Your task to perform on an android device: View the shopping cart on target.com. Image 0: 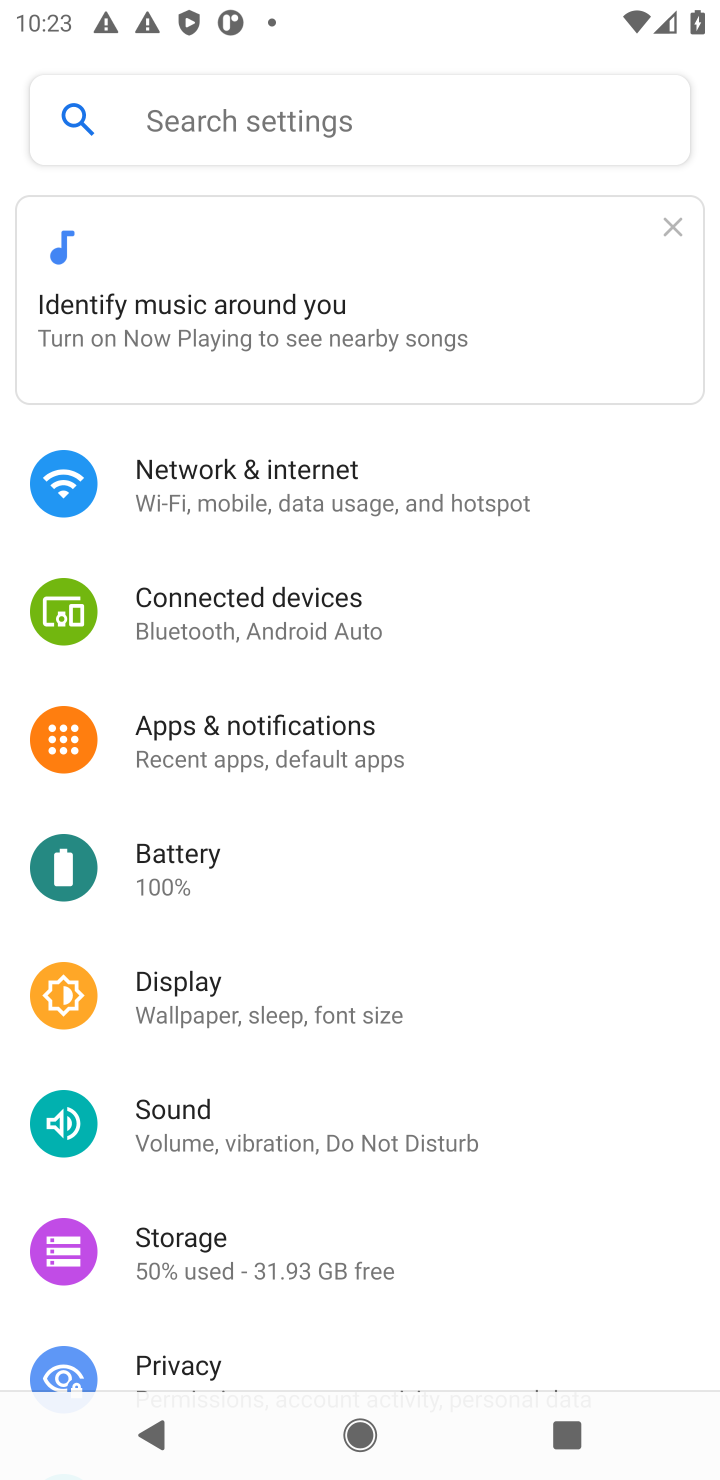
Step 0: press home button
Your task to perform on an android device: View the shopping cart on target.com. Image 1: 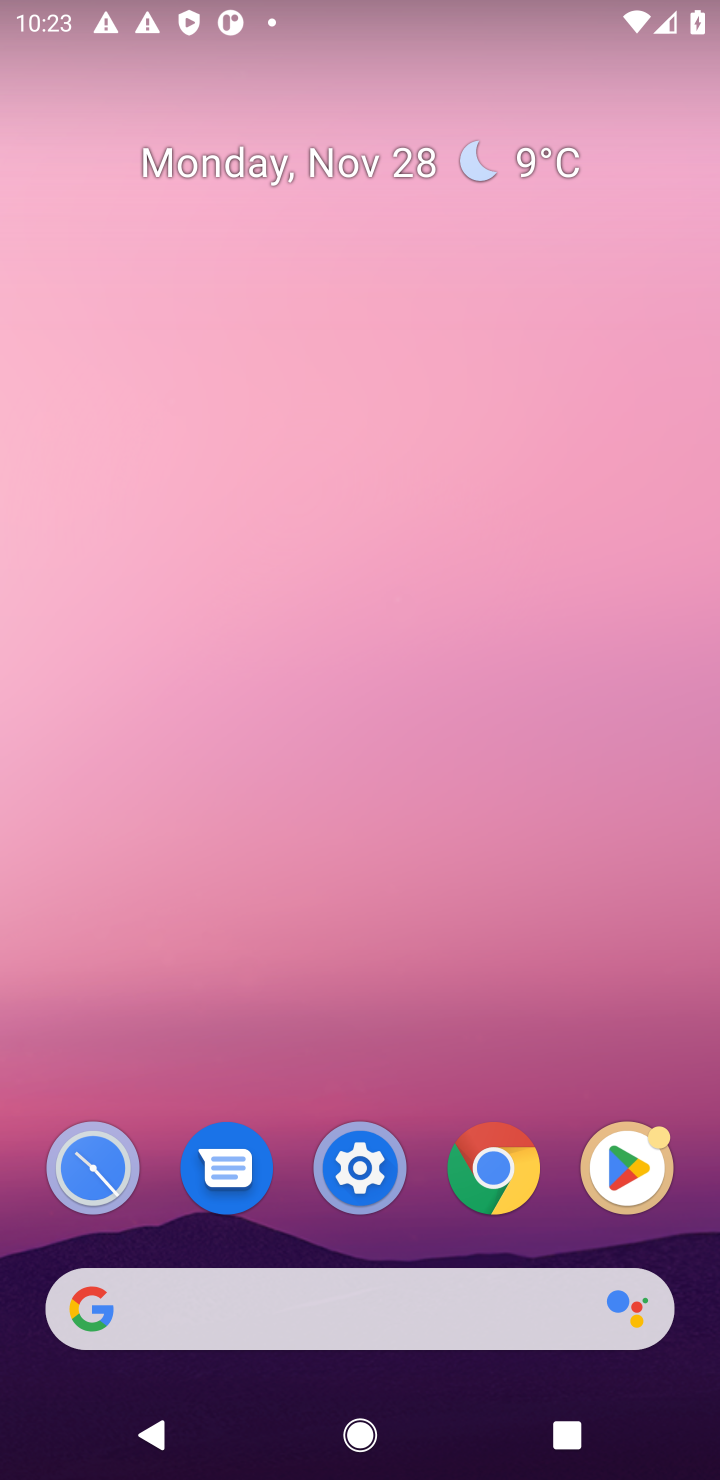
Step 1: click (341, 1324)
Your task to perform on an android device: View the shopping cart on target.com. Image 2: 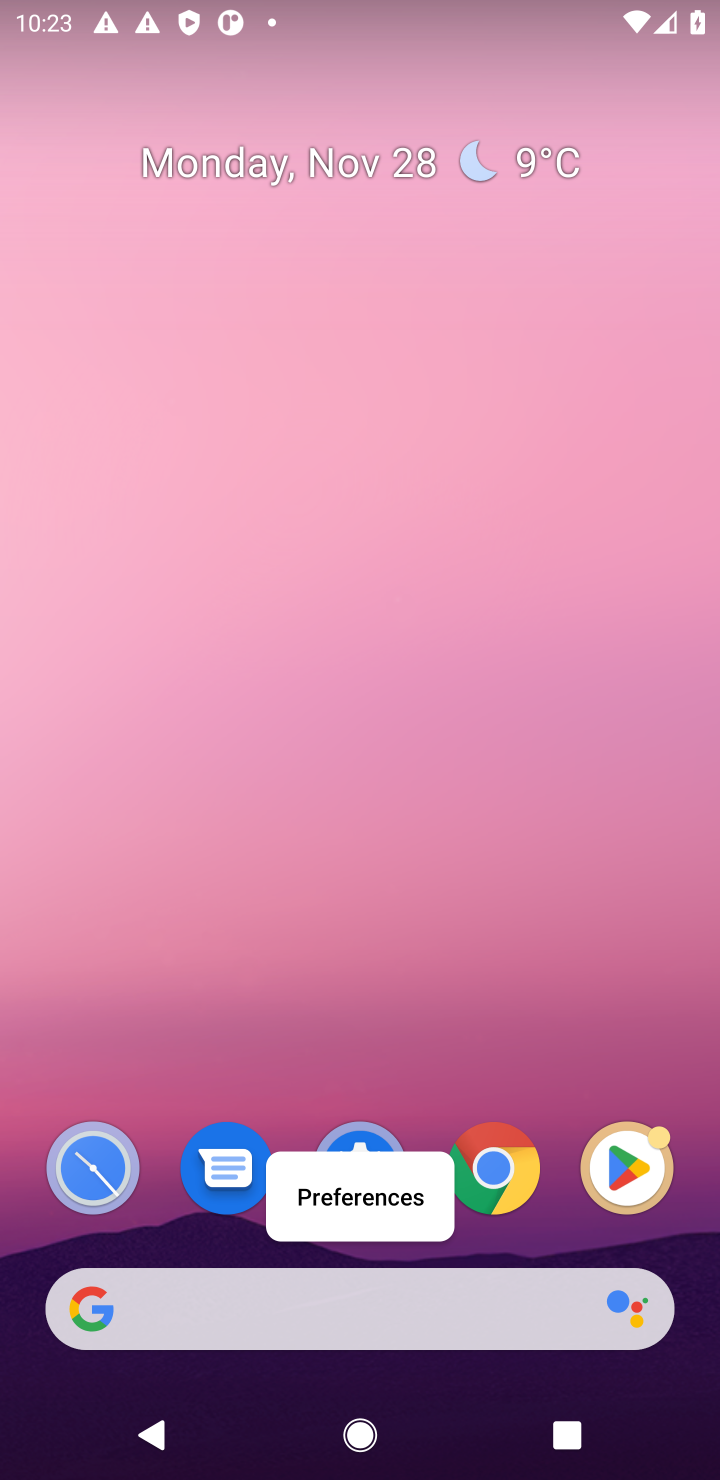
Step 2: click (399, 1307)
Your task to perform on an android device: View the shopping cart on target.com. Image 3: 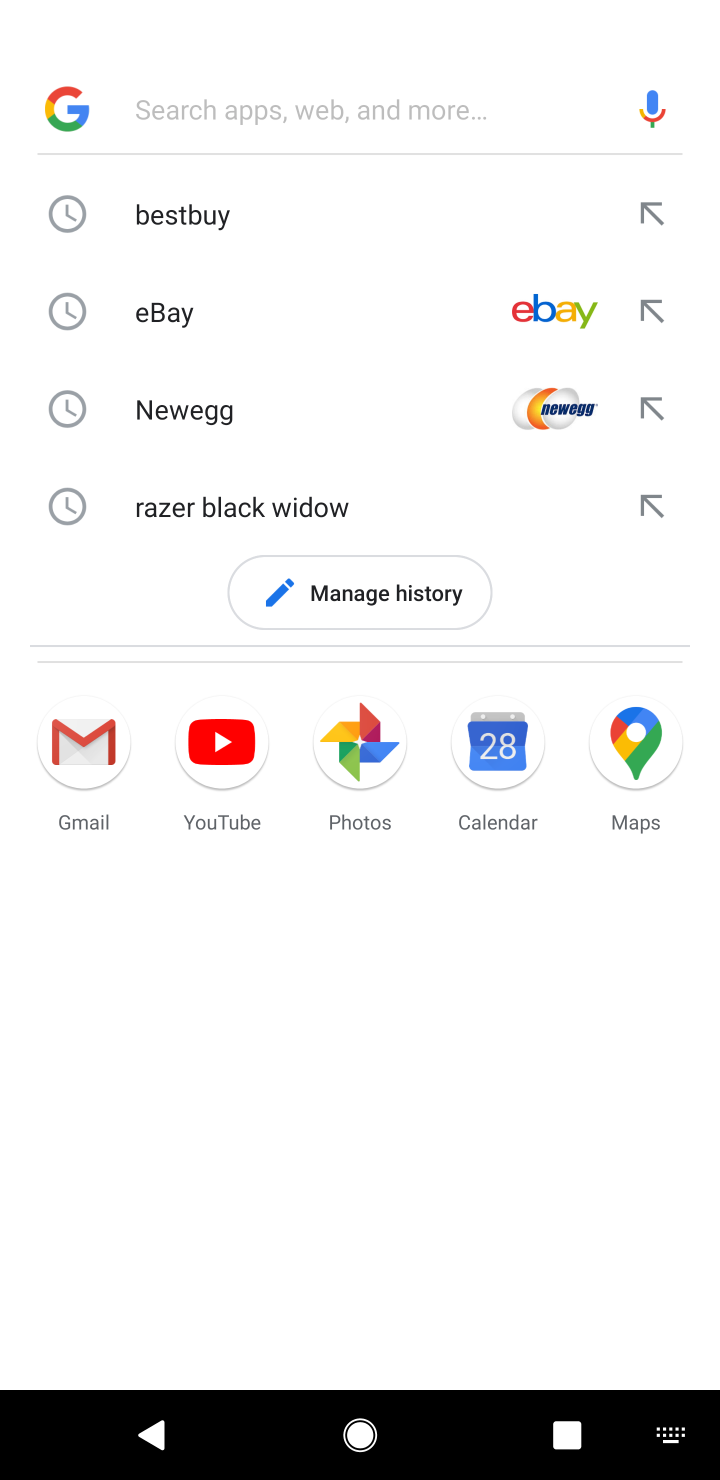
Step 3: type "target.com"
Your task to perform on an android device: View the shopping cart on target.com. Image 4: 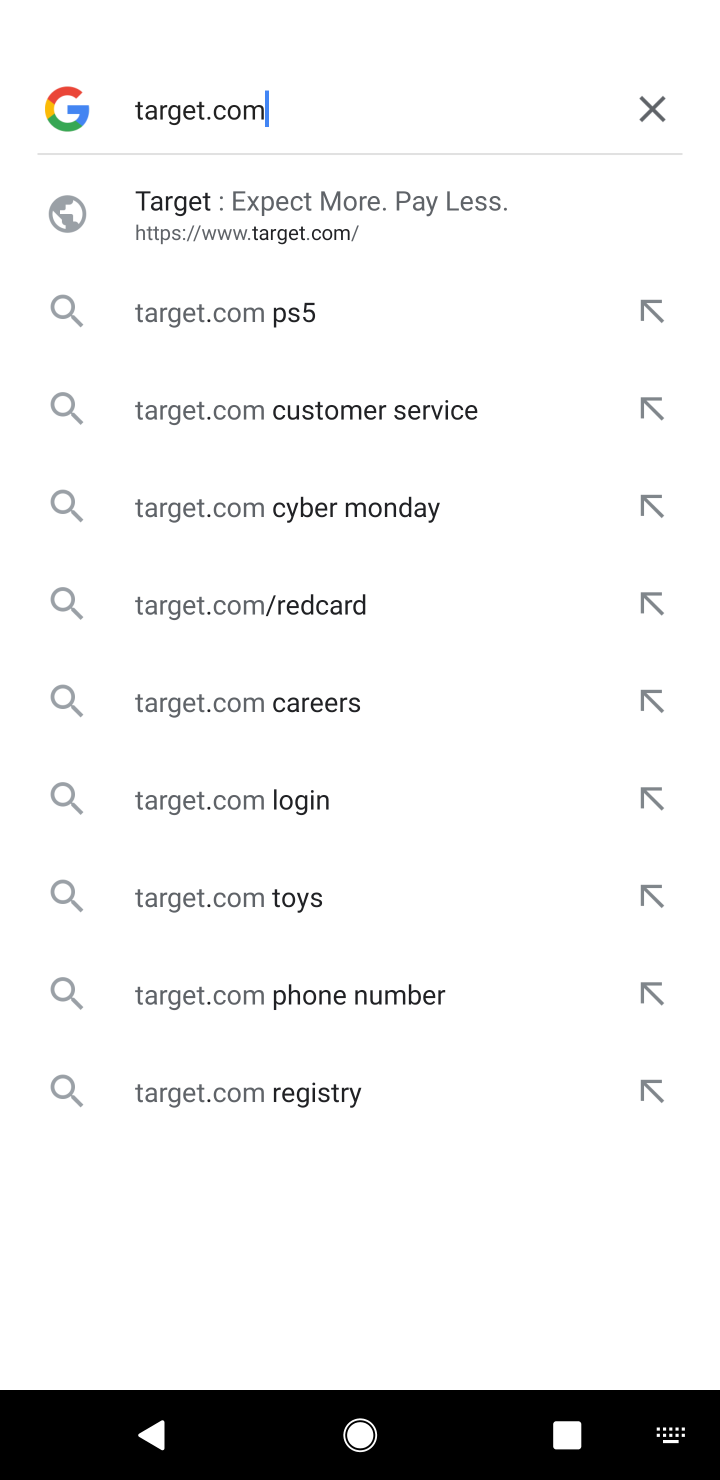
Step 4: click (259, 225)
Your task to perform on an android device: View the shopping cart on target.com. Image 5: 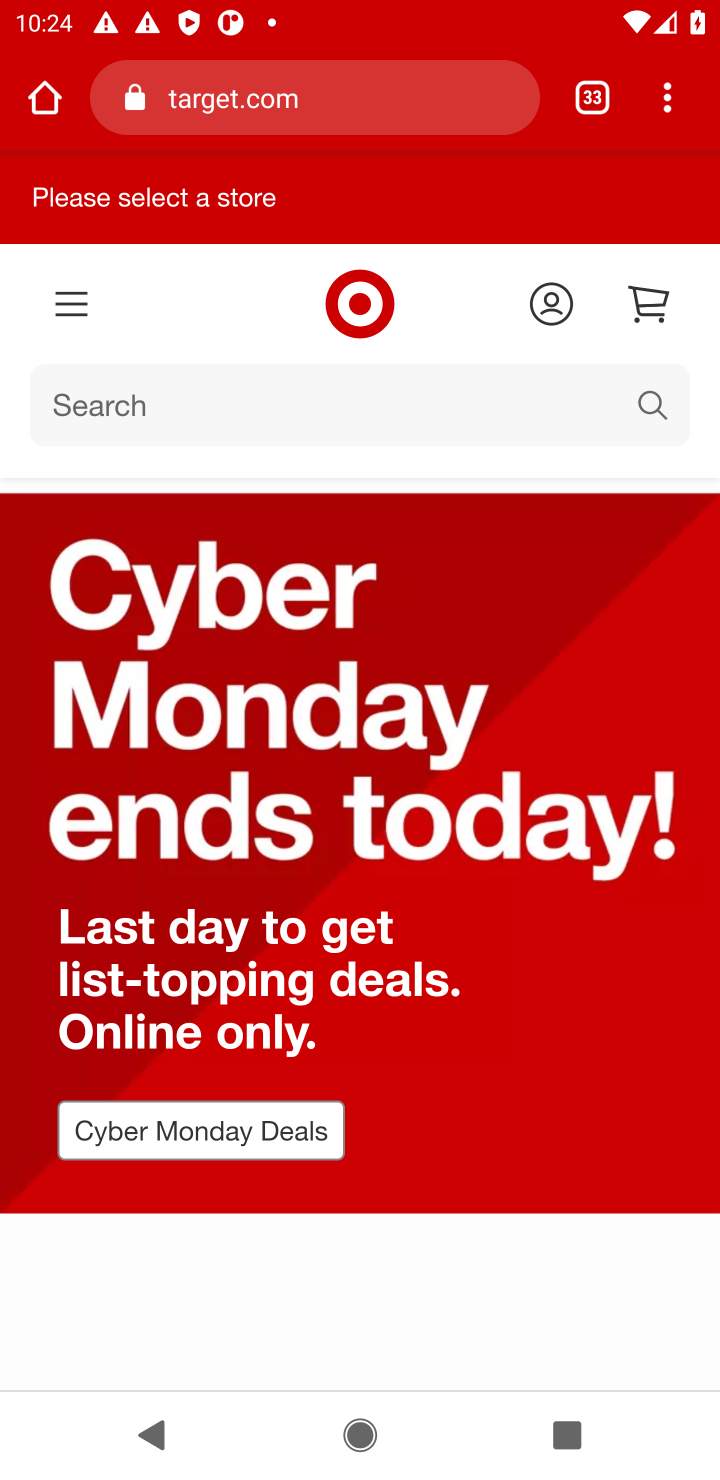
Step 5: task complete